Your task to perform on an android device: Open Android settings Image 0: 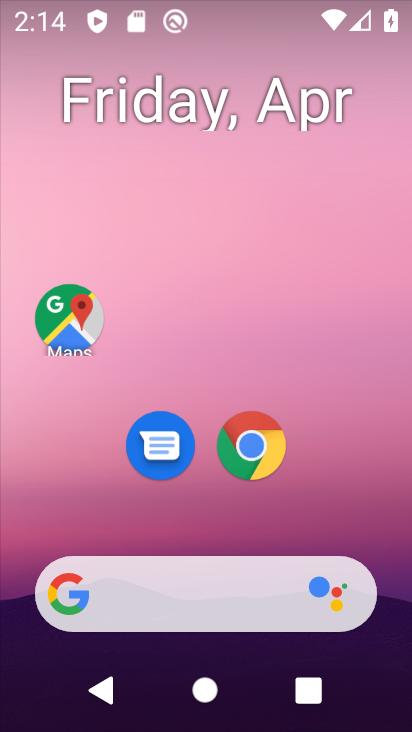
Step 0: drag from (306, 522) to (304, 11)
Your task to perform on an android device: Open Android settings Image 1: 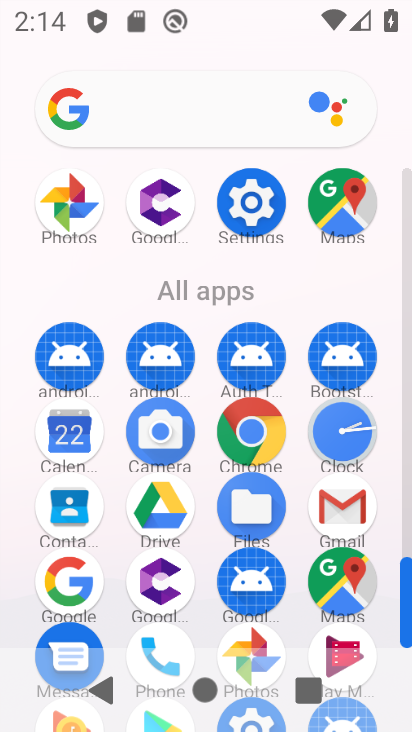
Step 1: click (252, 204)
Your task to perform on an android device: Open Android settings Image 2: 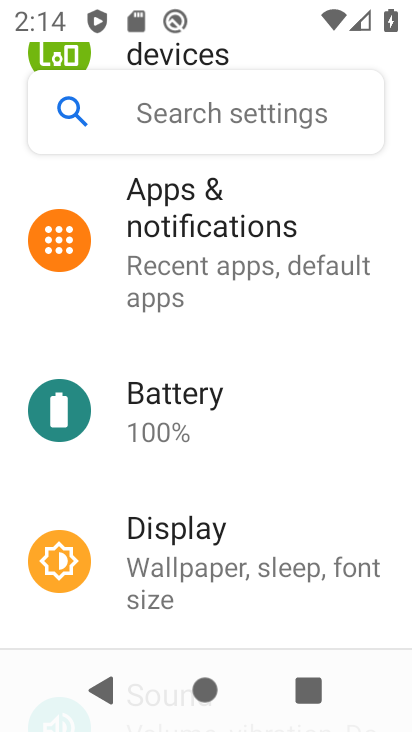
Step 2: task complete